Your task to perform on an android device: Open calendar and show me the second week of next month Image 0: 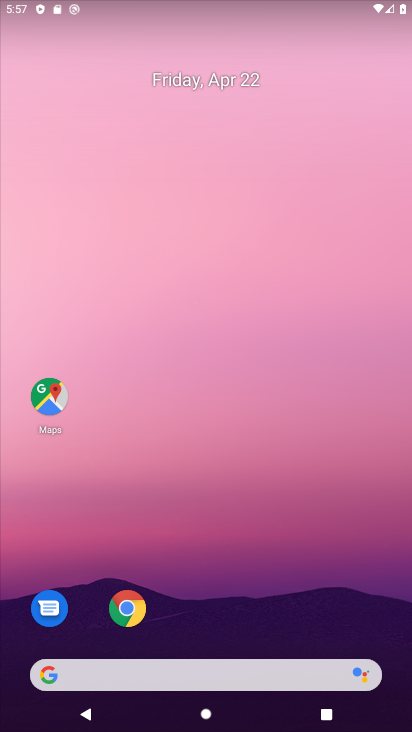
Step 0: click (252, 121)
Your task to perform on an android device: Open calendar and show me the second week of next month Image 1: 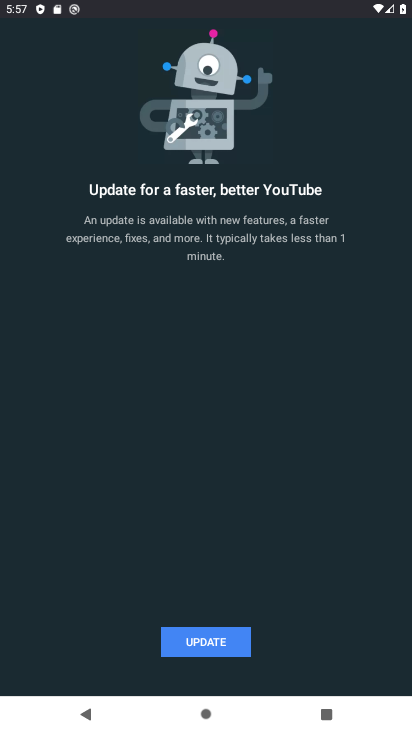
Step 1: press back button
Your task to perform on an android device: Open calendar and show me the second week of next month Image 2: 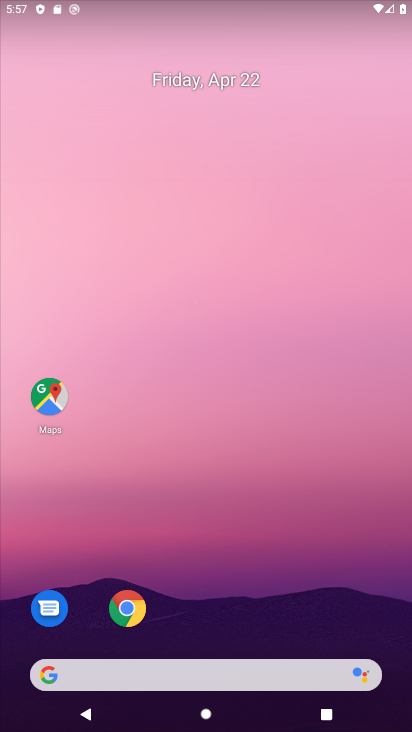
Step 2: drag from (201, 515) to (190, 168)
Your task to perform on an android device: Open calendar and show me the second week of next month Image 3: 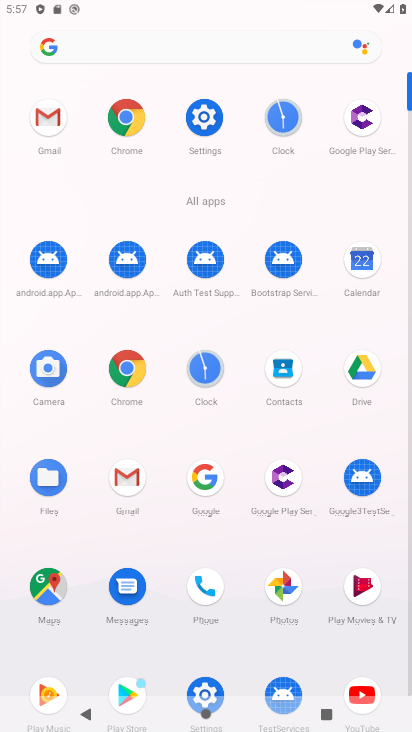
Step 3: click (362, 250)
Your task to perform on an android device: Open calendar and show me the second week of next month Image 4: 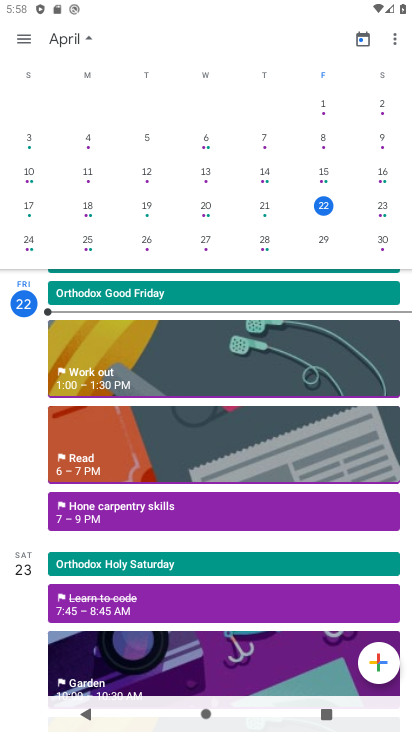
Step 4: click (26, 40)
Your task to perform on an android device: Open calendar and show me the second week of next month Image 5: 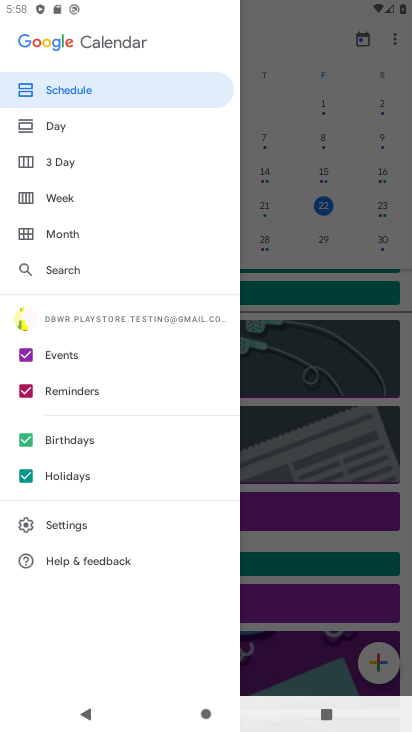
Step 5: click (51, 185)
Your task to perform on an android device: Open calendar and show me the second week of next month Image 6: 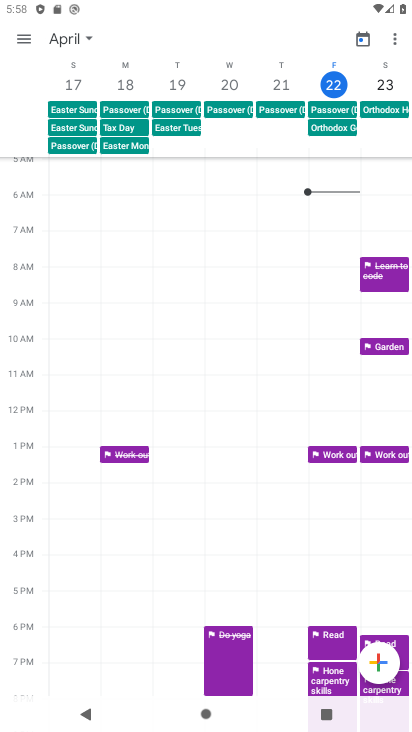
Step 6: click (68, 34)
Your task to perform on an android device: Open calendar and show me the second week of next month Image 7: 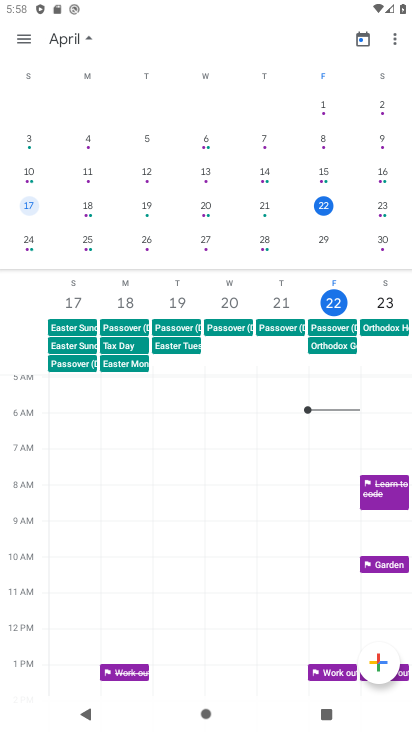
Step 7: drag from (349, 173) to (6, 196)
Your task to perform on an android device: Open calendar and show me the second week of next month Image 8: 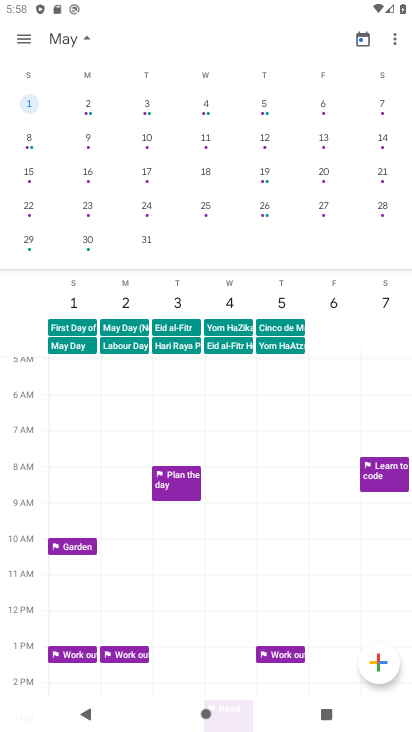
Step 8: click (28, 148)
Your task to perform on an android device: Open calendar and show me the second week of next month Image 9: 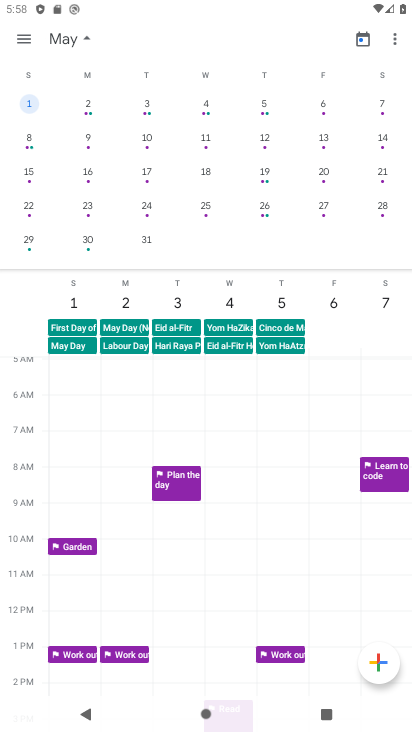
Step 9: click (28, 148)
Your task to perform on an android device: Open calendar and show me the second week of next month Image 10: 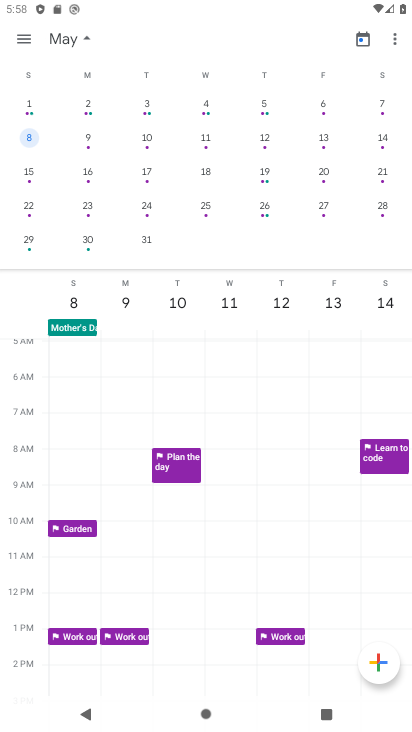
Step 10: task complete